Your task to perform on an android device: What is the recent news? Image 0: 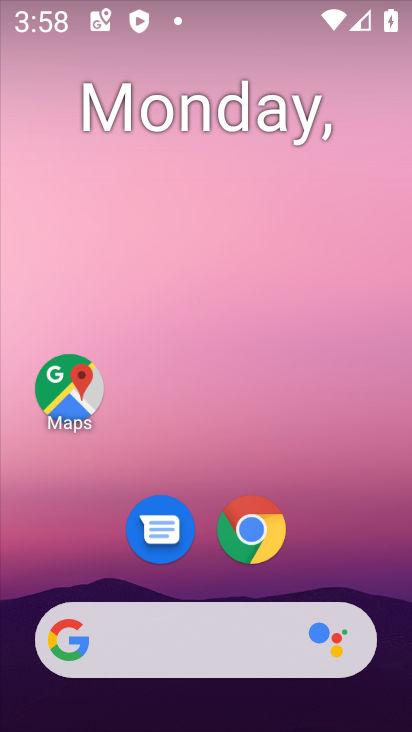
Step 0: drag from (2, 309) to (406, 323)
Your task to perform on an android device: What is the recent news? Image 1: 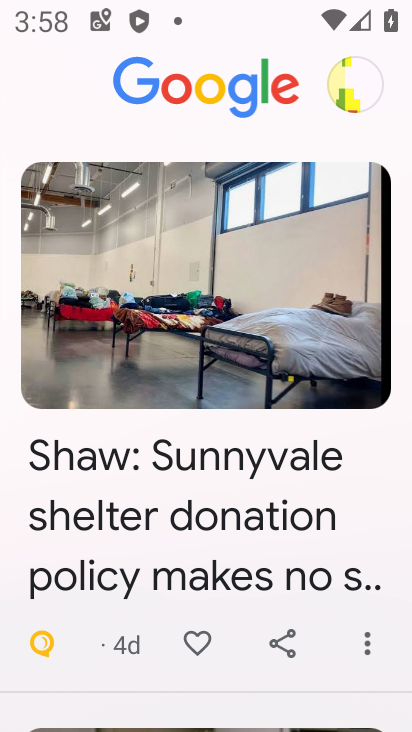
Step 1: task complete